Your task to perform on an android device: What's the weather? Image 0: 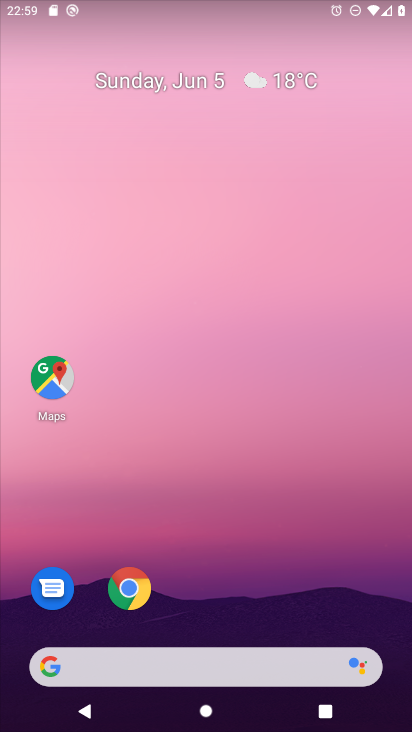
Step 0: click (261, 82)
Your task to perform on an android device: What's the weather? Image 1: 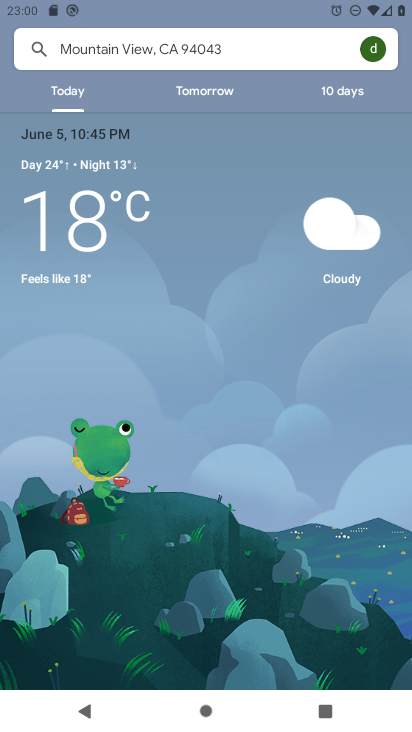
Step 1: task complete